Your task to perform on an android device: turn on translation in the chrome app Image 0: 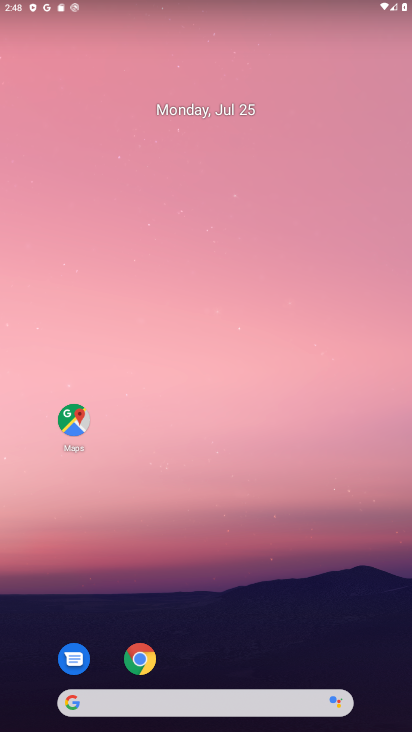
Step 0: drag from (196, 698) to (175, 69)
Your task to perform on an android device: turn on translation in the chrome app Image 1: 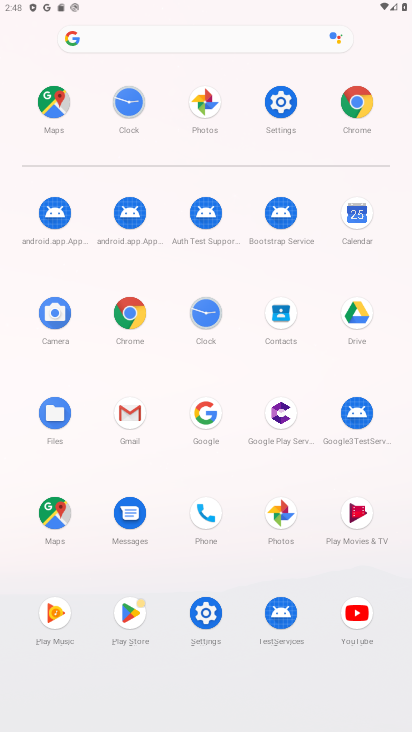
Step 1: click (122, 313)
Your task to perform on an android device: turn on translation in the chrome app Image 2: 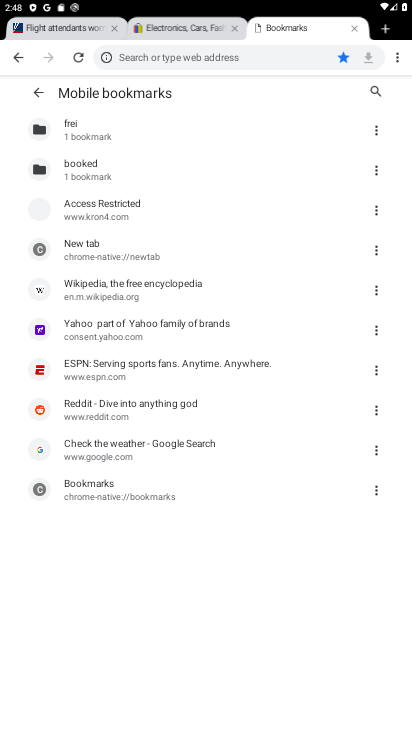
Step 2: drag from (399, 58) to (281, 301)
Your task to perform on an android device: turn on translation in the chrome app Image 3: 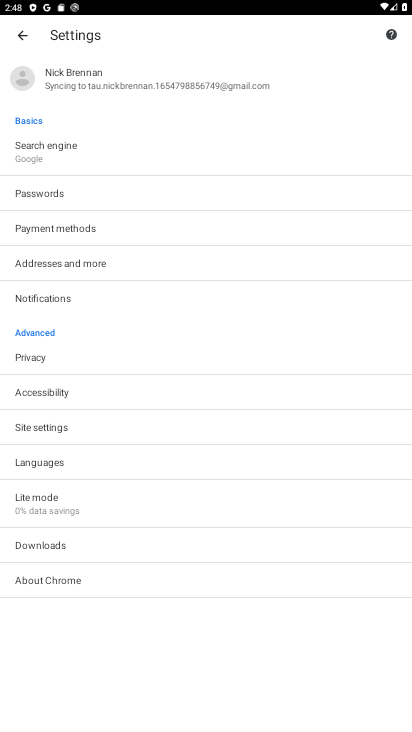
Step 3: click (54, 458)
Your task to perform on an android device: turn on translation in the chrome app Image 4: 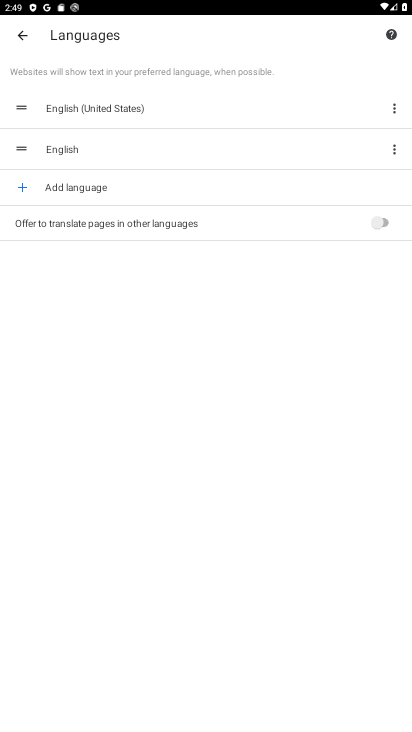
Step 4: click (388, 227)
Your task to perform on an android device: turn on translation in the chrome app Image 5: 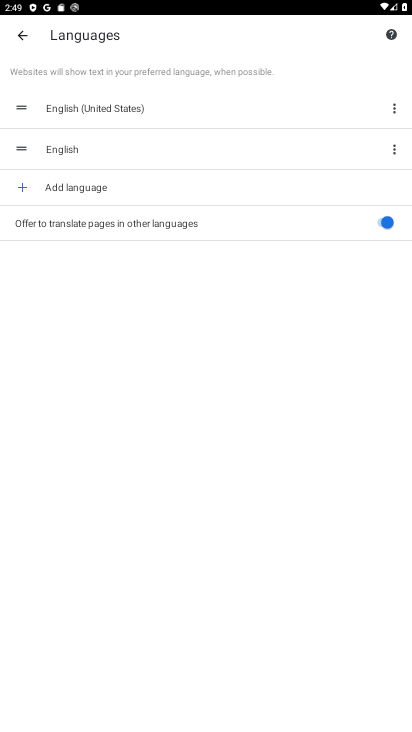
Step 5: task complete